Your task to perform on an android device: Open Google Image 0: 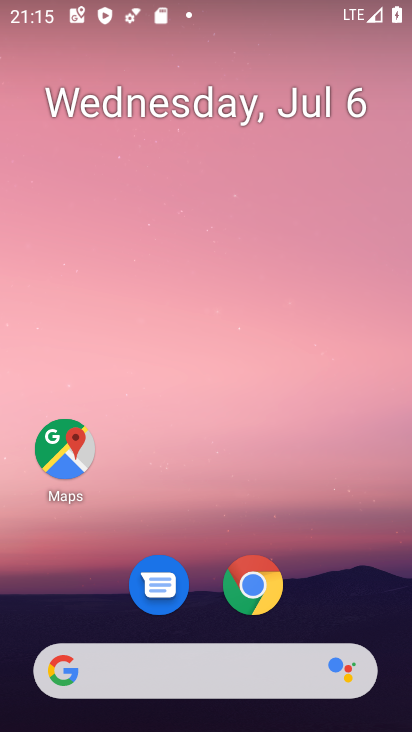
Step 0: click (186, 681)
Your task to perform on an android device: Open Google Image 1: 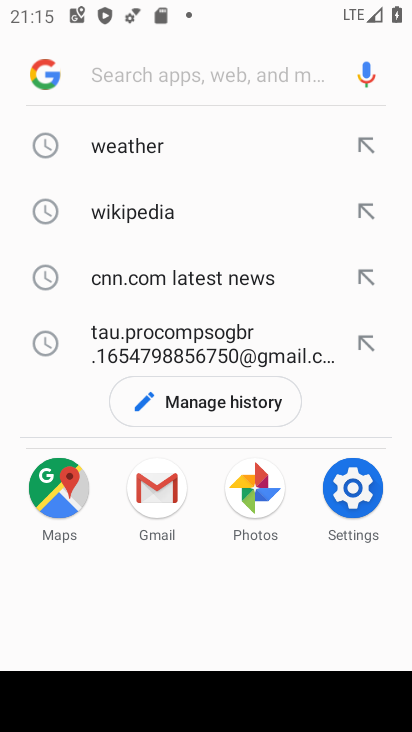
Step 1: click (40, 65)
Your task to perform on an android device: Open Google Image 2: 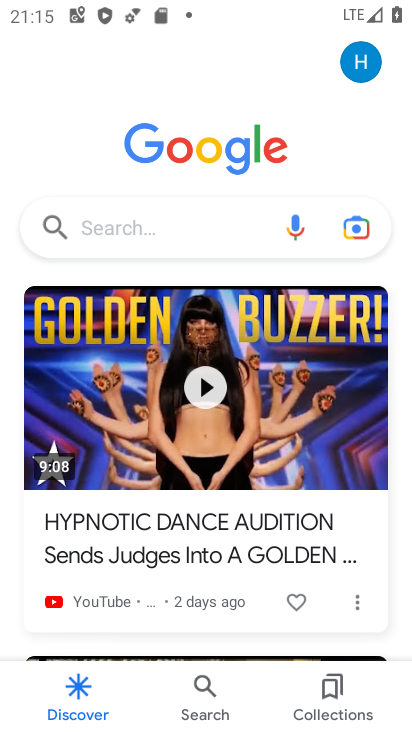
Step 2: task complete